Your task to perform on an android device: Go to battery settings Image 0: 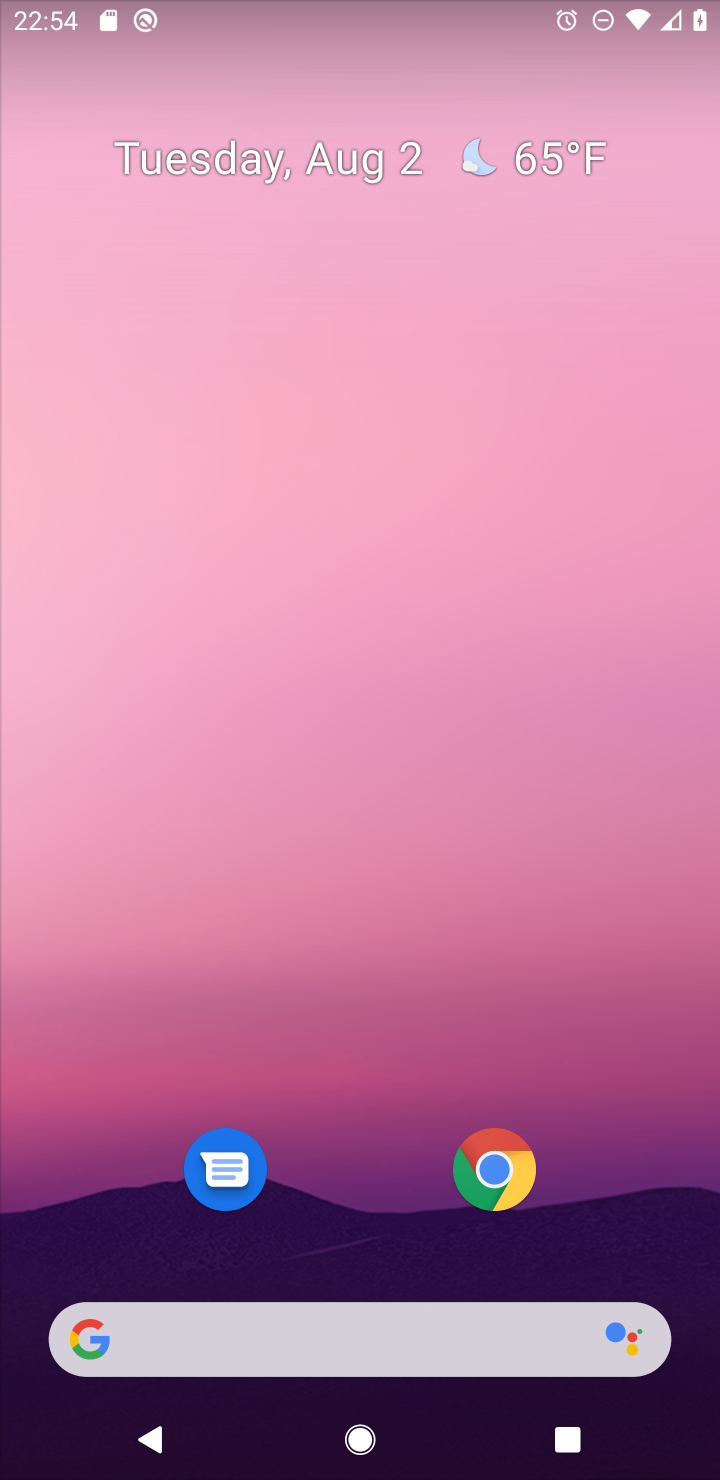
Step 0: drag from (388, 967) to (490, 14)
Your task to perform on an android device: Go to battery settings Image 1: 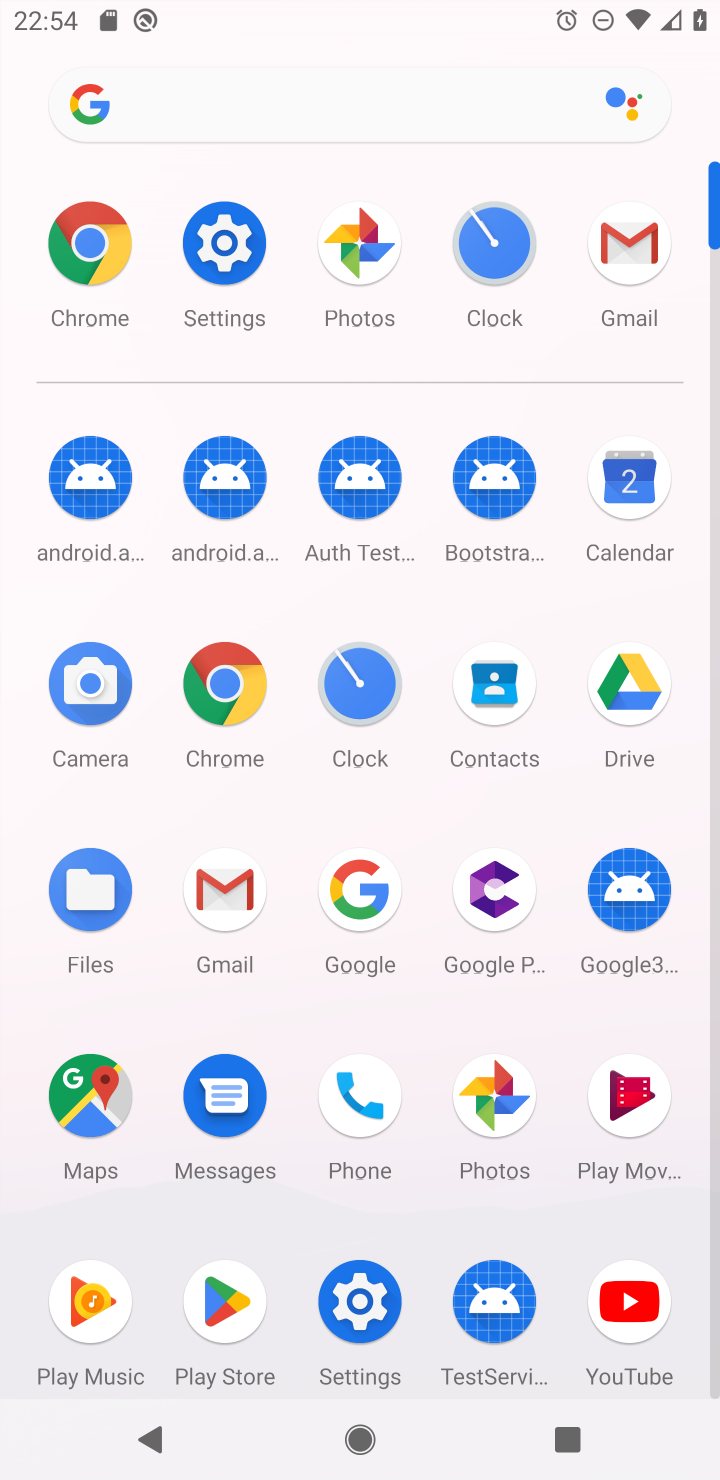
Step 1: click (225, 238)
Your task to perform on an android device: Go to battery settings Image 2: 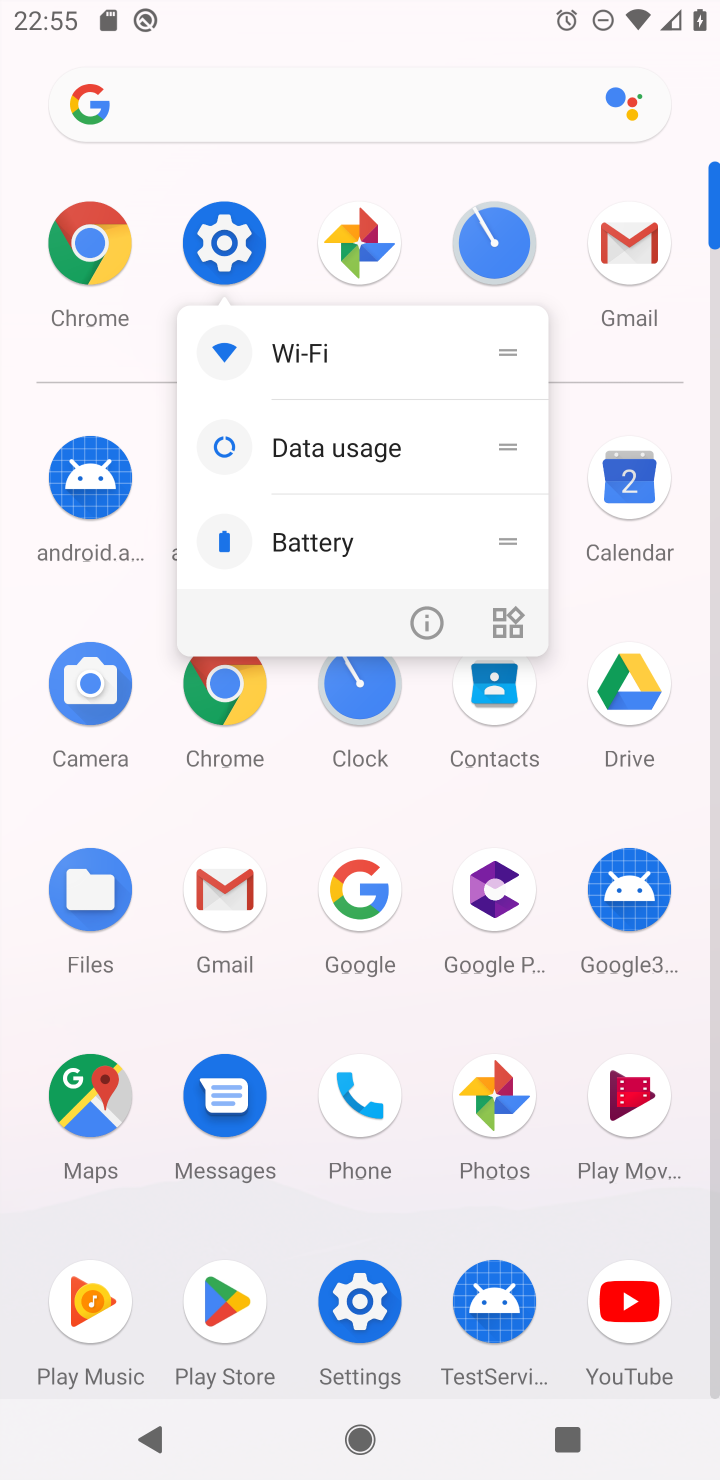
Step 2: click (204, 265)
Your task to perform on an android device: Go to battery settings Image 3: 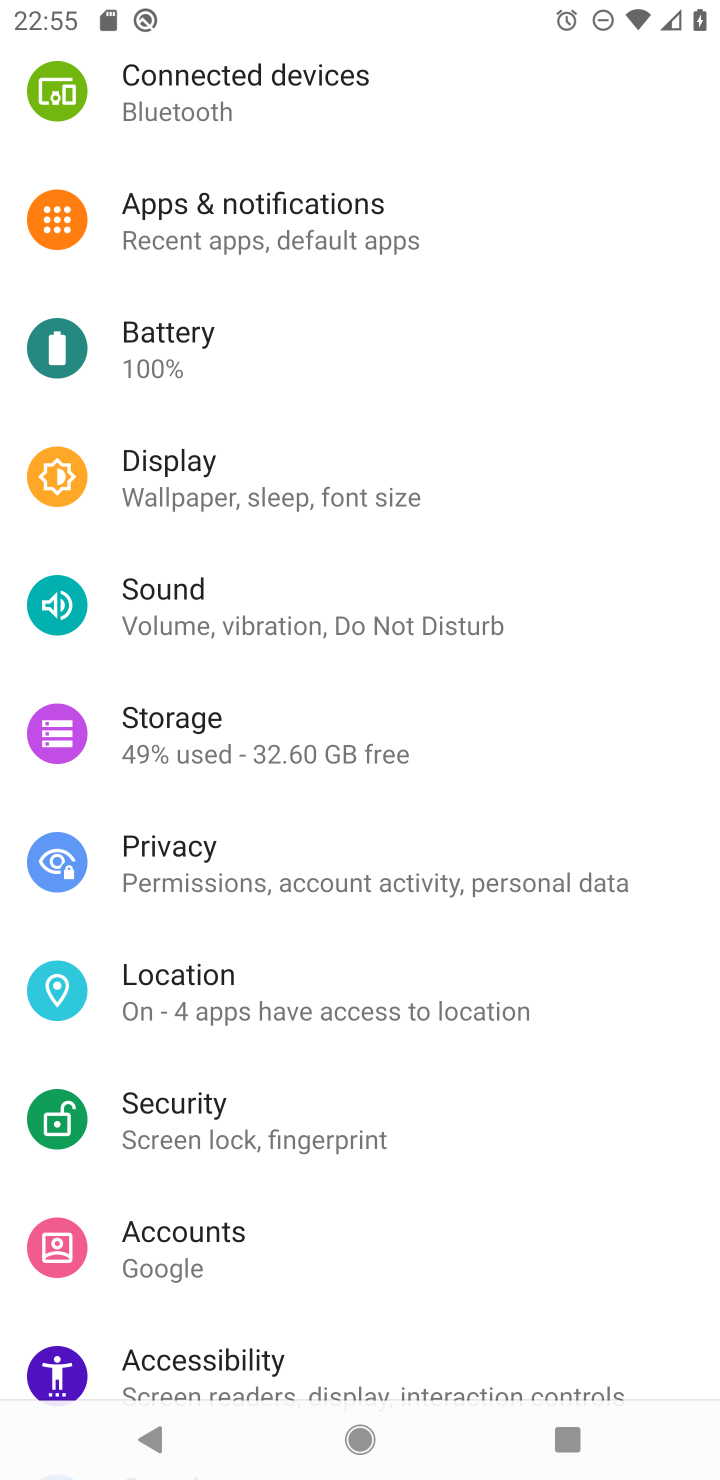
Step 3: click (167, 342)
Your task to perform on an android device: Go to battery settings Image 4: 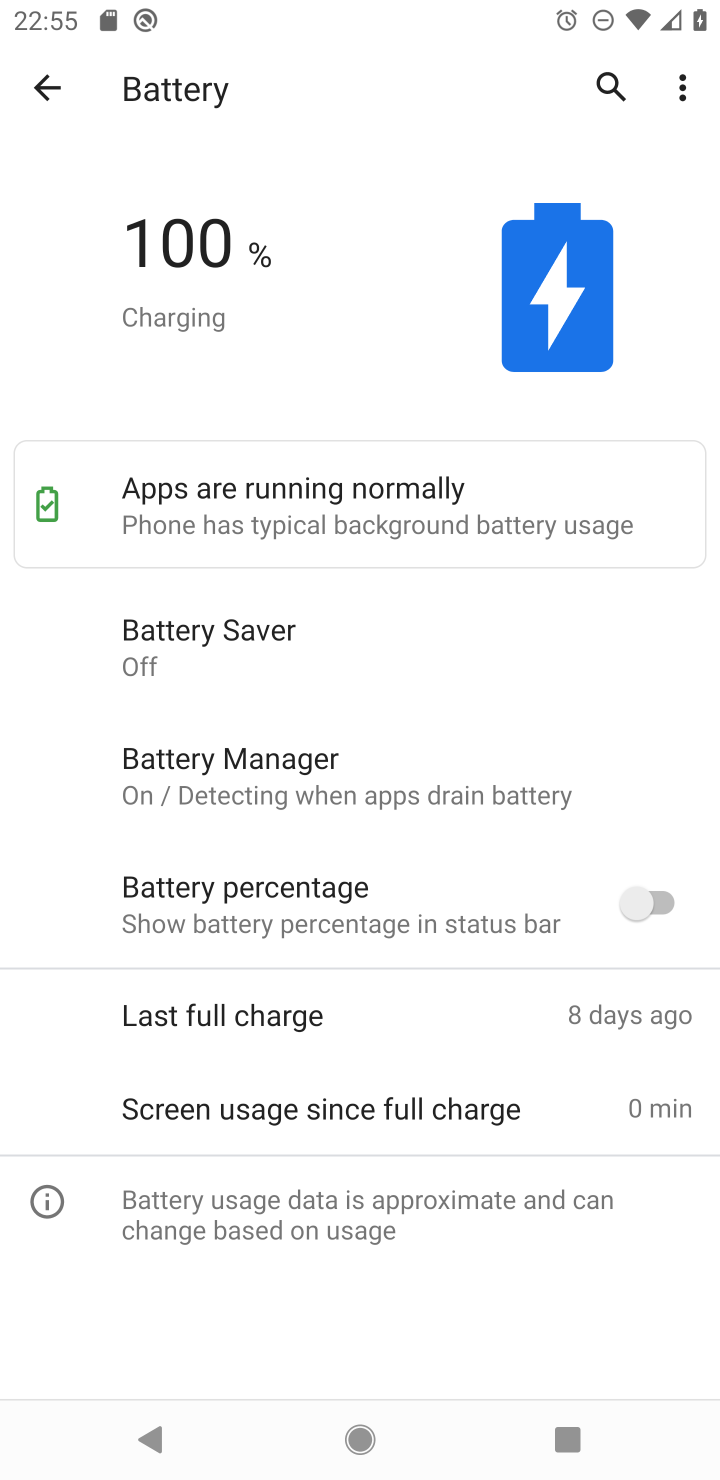
Step 4: task complete